Your task to perform on an android device: Show me some nice wallpapers for my computer Image 0: 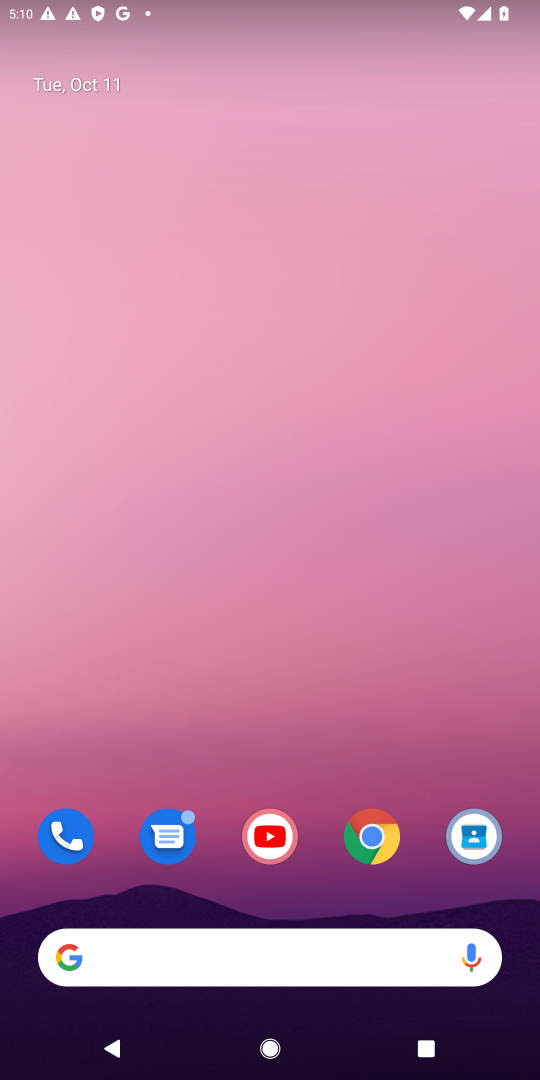
Step 0: click (368, 851)
Your task to perform on an android device: Show me some nice wallpapers for my computer Image 1: 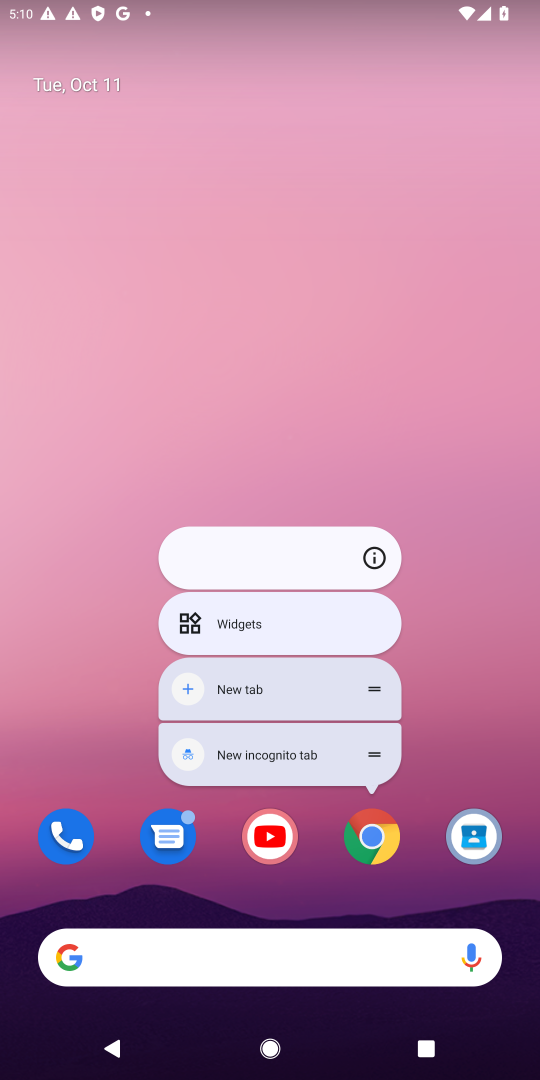
Step 1: click (385, 832)
Your task to perform on an android device: Show me some nice wallpapers for my computer Image 2: 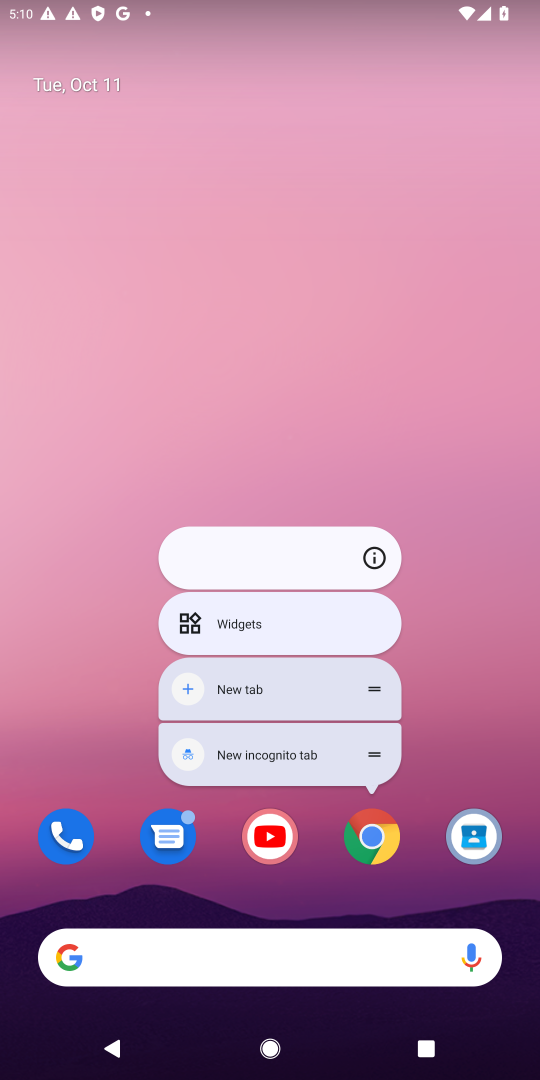
Step 2: click (375, 836)
Your task to perform on an android device: Show me some nice wallpapers for my computer Image 3: 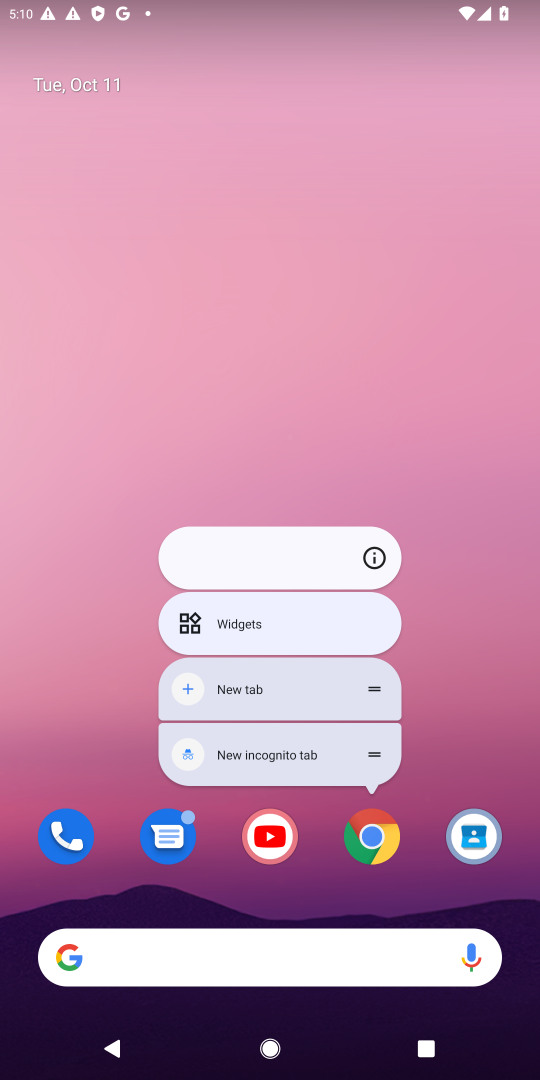
Step 3: click (371, 836)
Your task to perform on an android device: Show me some nice wallpapers for my computer Image 4: 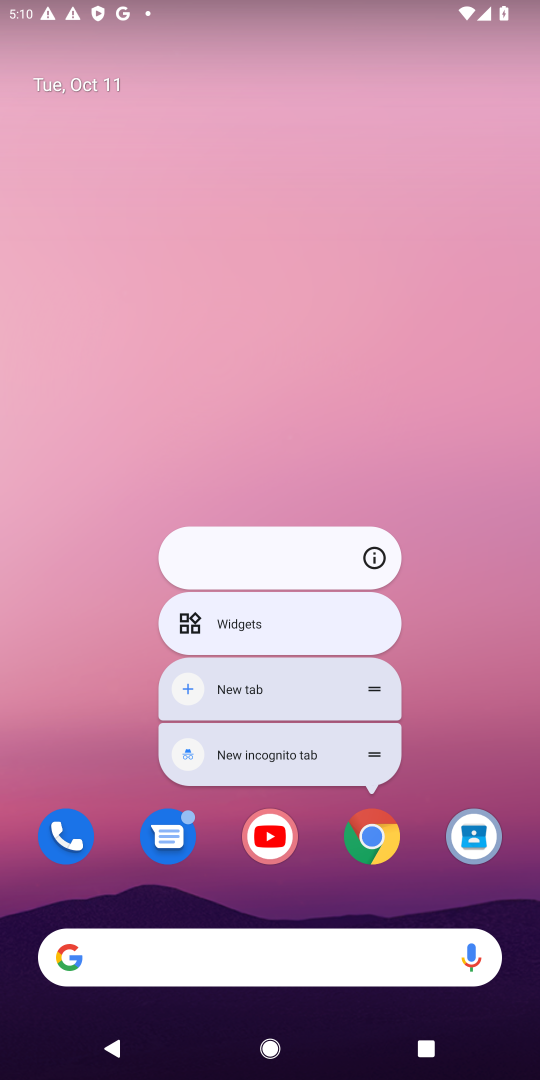
Step 4: click (370, 837)
Your task to perform on an android device: Show me some nice wallpapers for my computer Image 5: 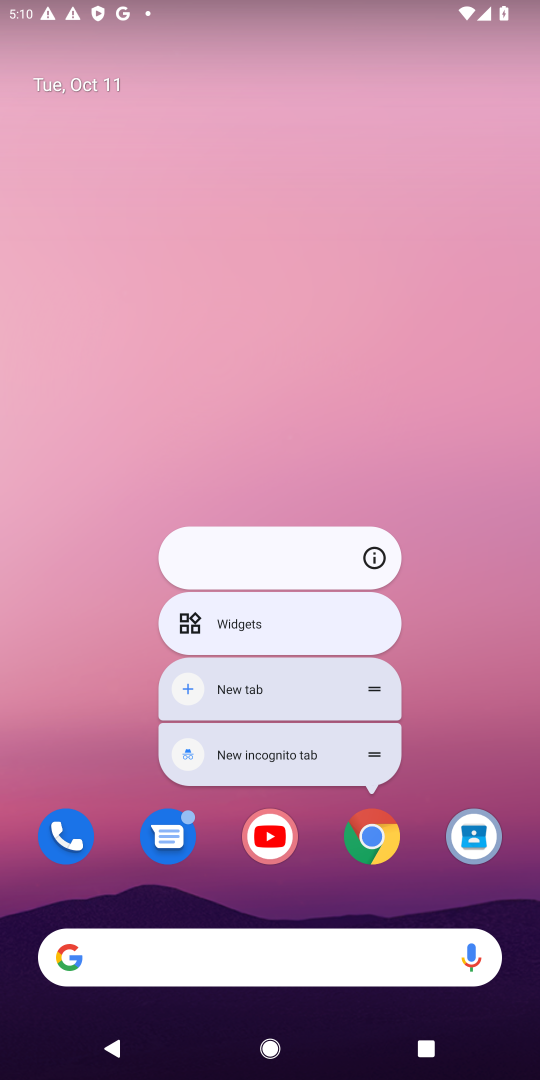
Step 5: click (370, 848)
Your task to perform on an android device: Show me some nice wallpapers for my computer Image 6: 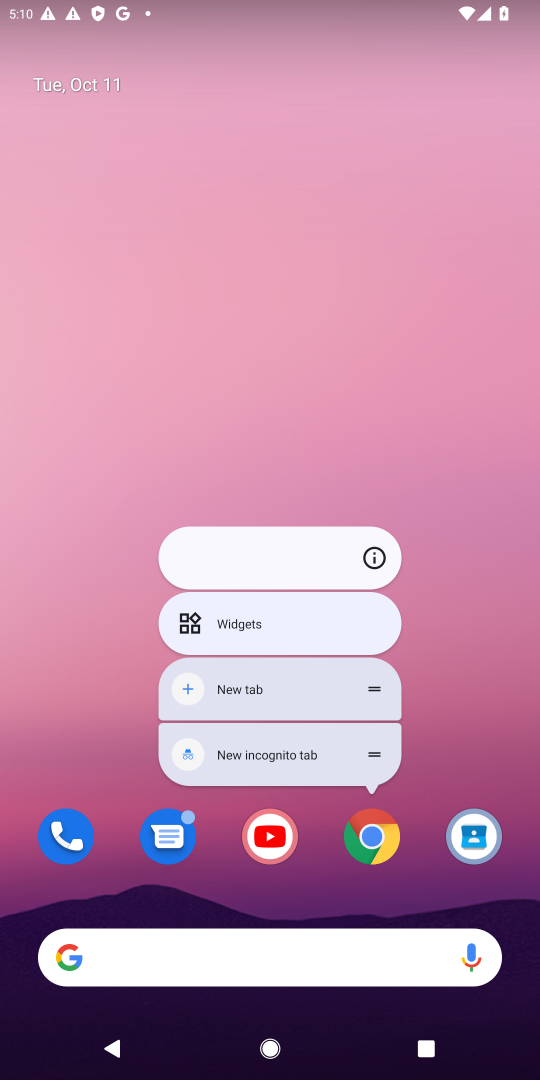
Step 6: click (374, 839)
Your task to perform on an android device: Show me some nice wallpapers for my computer Image 7: 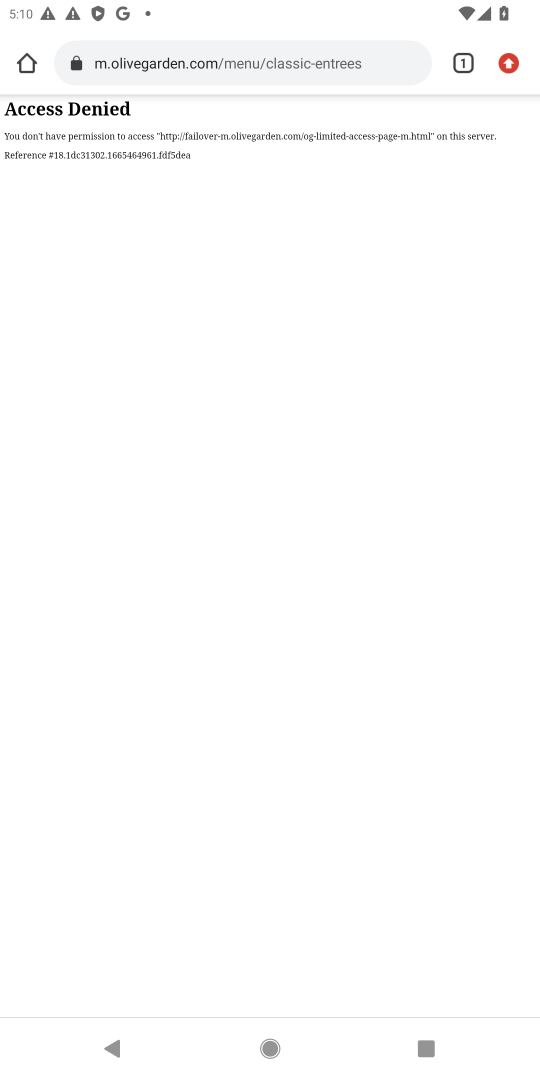
Step 7: click (256, 54)
Your task to perform on an android device: Show me some nice wallpapers for my computer Image 8: 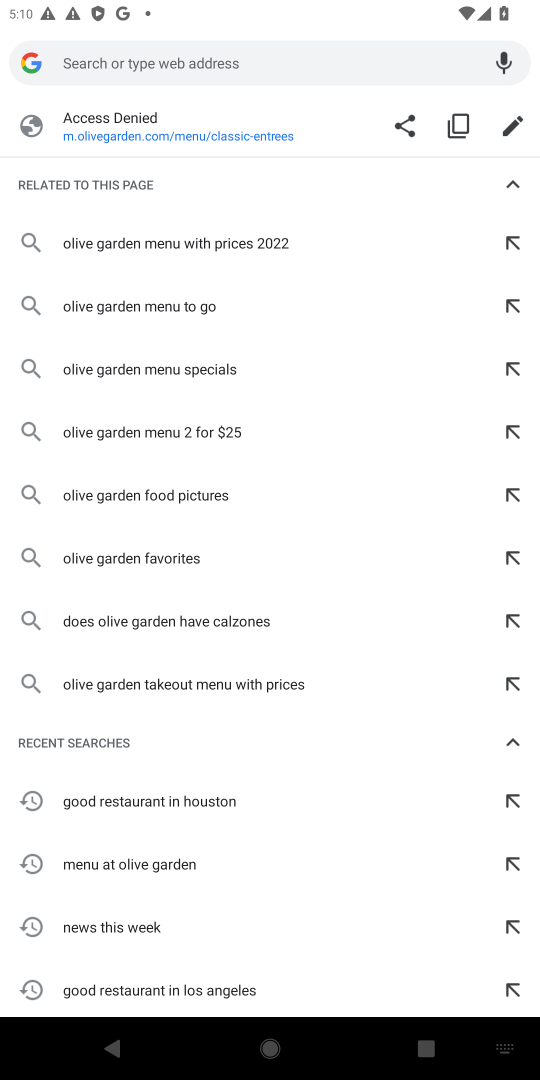
Step 8: type "nice wallpapers for my computer"
Your task to perform on an android device: Show me some nice wallpapers for my computer Image 9: 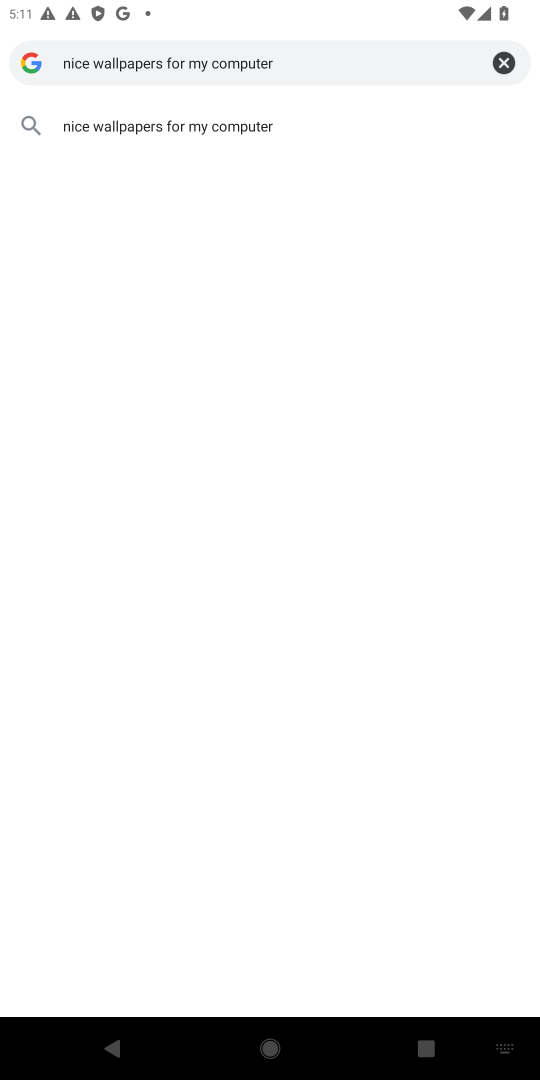
Step 9: click (204, 123)
Your task to perform on an android device: Show me some nice wallpapers for my computer Image 10: 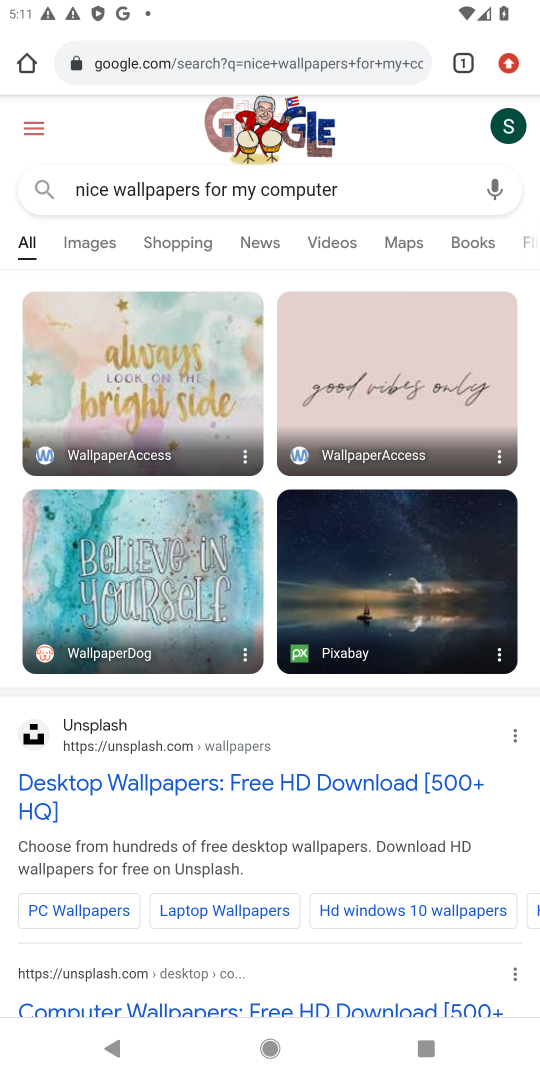
Step 10: click (197, 779)
Your task to perform on an android device: Show me some nice wallpapers for my computer Image 11: 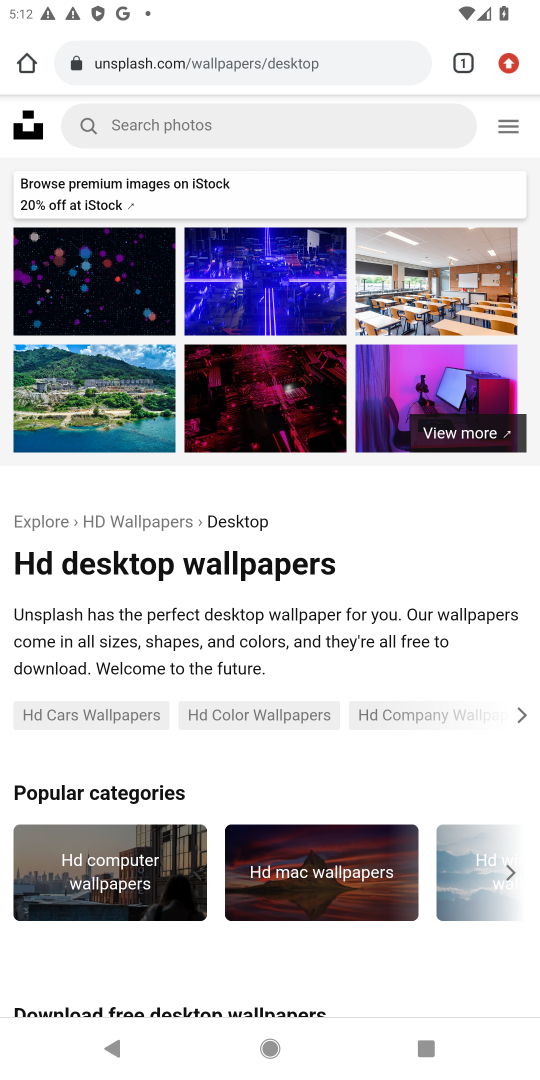
Step 11: task complete